Your task to perform on an android device: open chrome and create a bookmark for the current page Image 0: 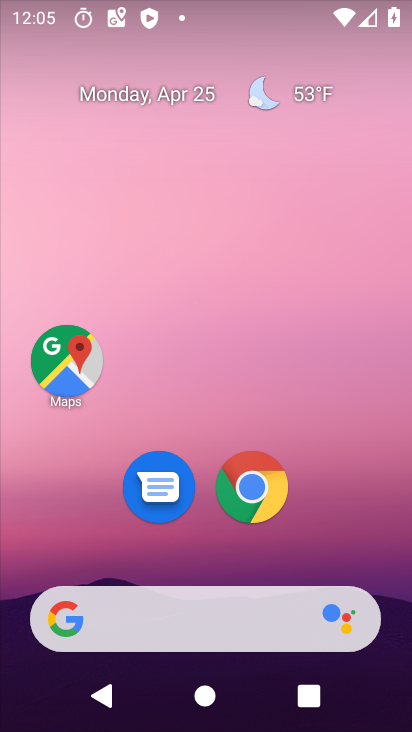
Step 0: click (271, 525)
Your task to perform on an android device: open chrome and create a bookmark for the current page Image 1: 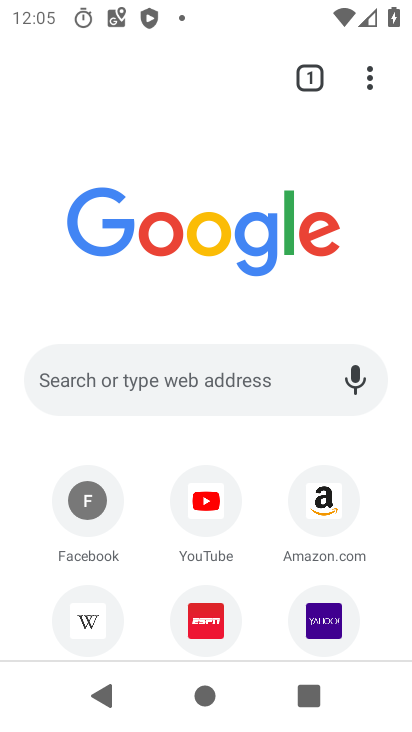
Step 1: click (371, 78)
Your task to perform on an android device: open chrome and create a bookmark for the current page Image 2: 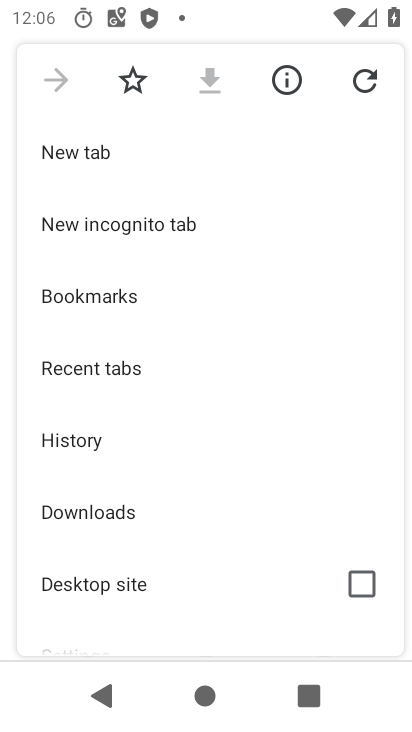
Step 2: click (134, 78)
Your task to perform on an android device: open chrome and create a bookmark for the current page Image 3: 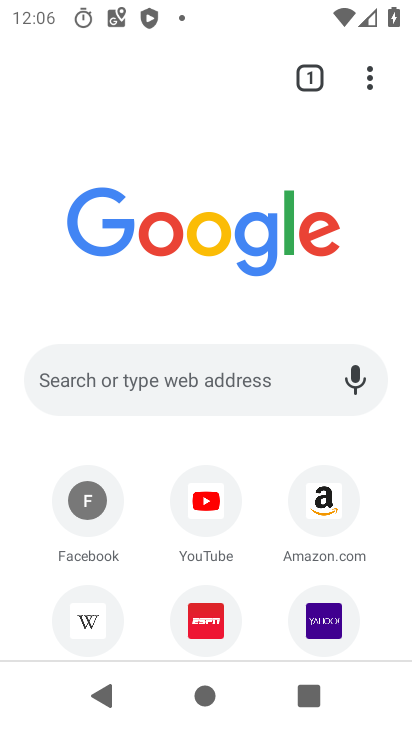
Step 3: task complete